Your task to perform on an android device: open a bookmark in the chrome app Image 0: 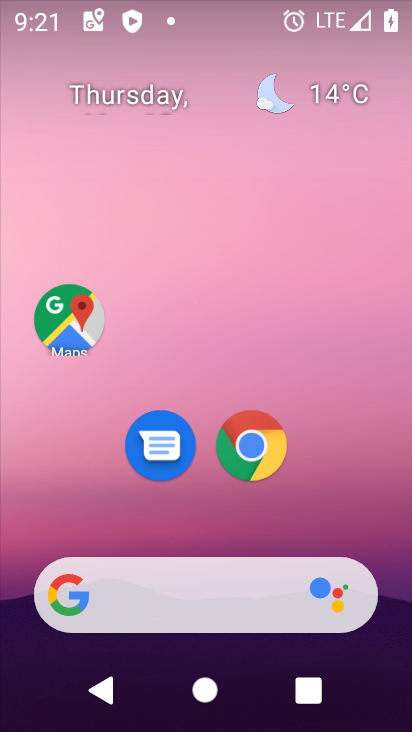
Step 0: click (253, 450)
Your task to perform on an android device: open a bookmark in the chrome app Image 1: 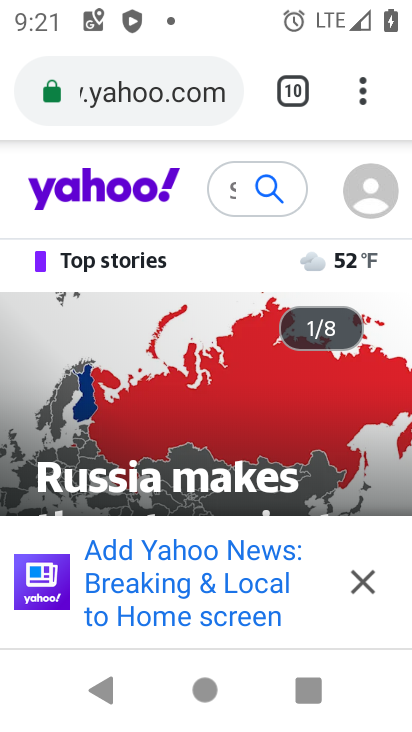
Step 1: click (364, 101)
Your task to perform on an android device: open a bookmark in the chrome app Image 2: 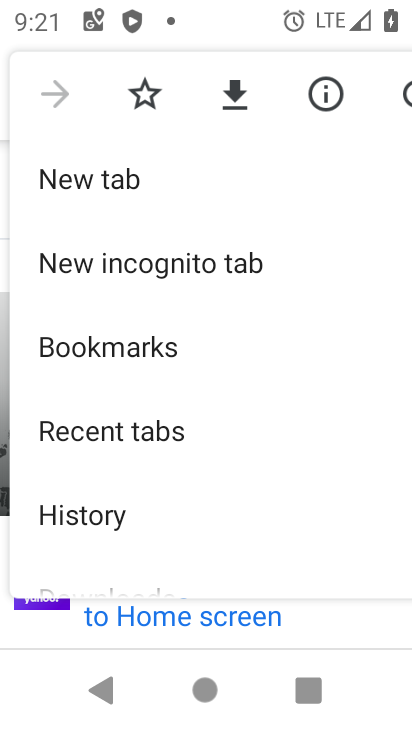
Step 2: drag from (142, 539) to (162, 124)
Your task to perform on an android device: open a bookmark in the chrome app Image 3: 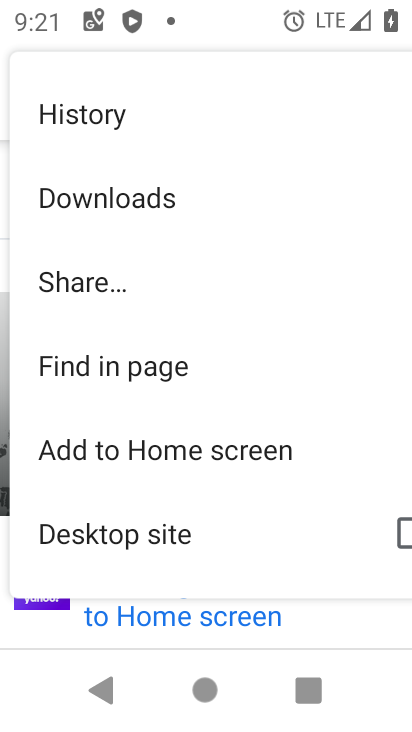
Step 3: drag from (166, 535) to (182, 120)
Your task to perform on an android device: open a bookmark in the chrome app Image 4: 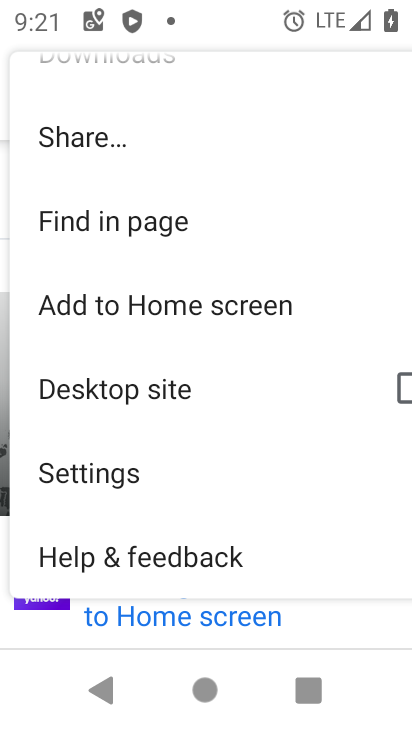
Step 4: drag from (158, 458) to (177, 159)
Your task to perform on an android device: open a bookmark in the chrome app Image 5: 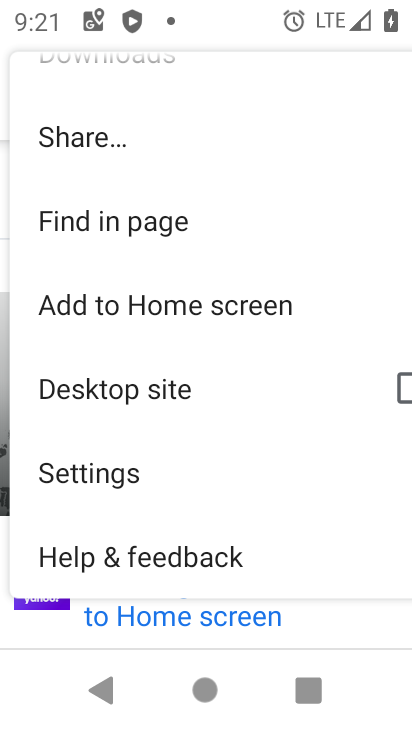
Step 5: drag from (237, 165) to (220, 533)
Your task to perform on an android device: open a bookmark in the chrome app Image 6: 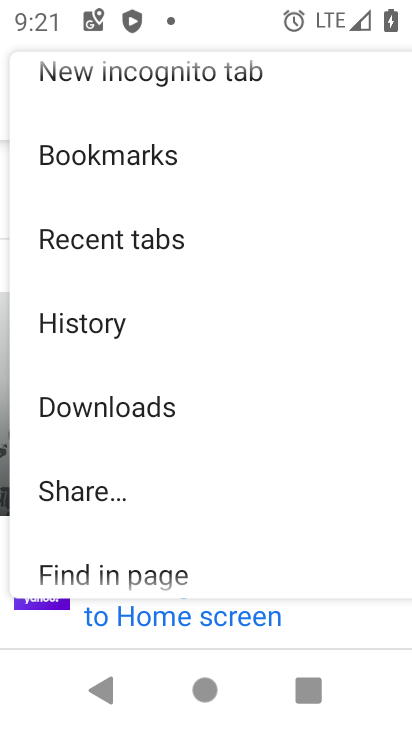
Step 6: click (106, 154)
Your task to perform on an android device: open a bookmark in the chrome app Image 7: 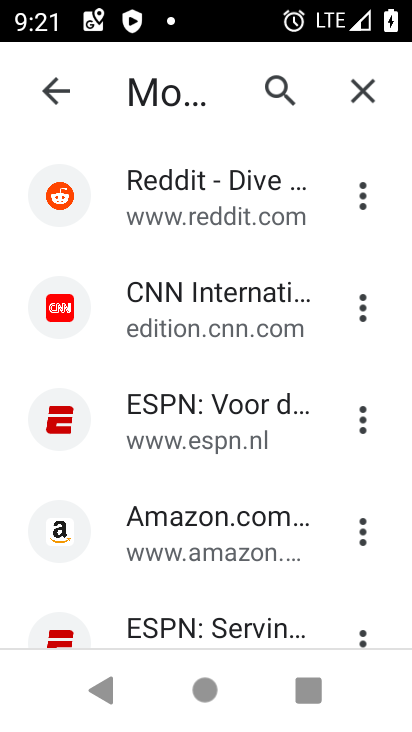
Step 7: click (152, 190)
Your task to perform on an android device: open a bookmark in the chrome app Image 8: 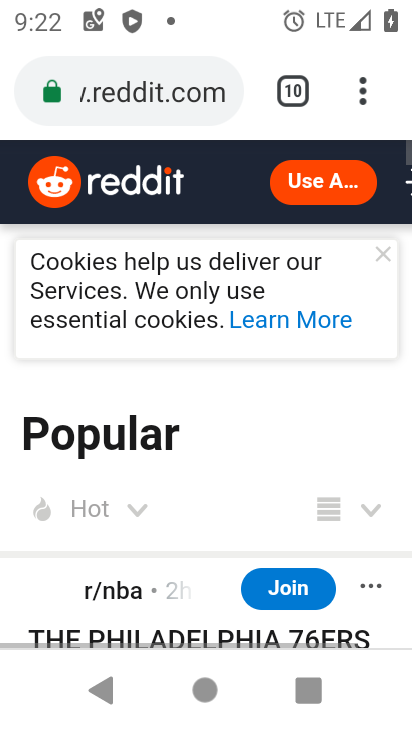
Step 8: task complete